Your task to perform on an android device: Go to Maps Image 0: 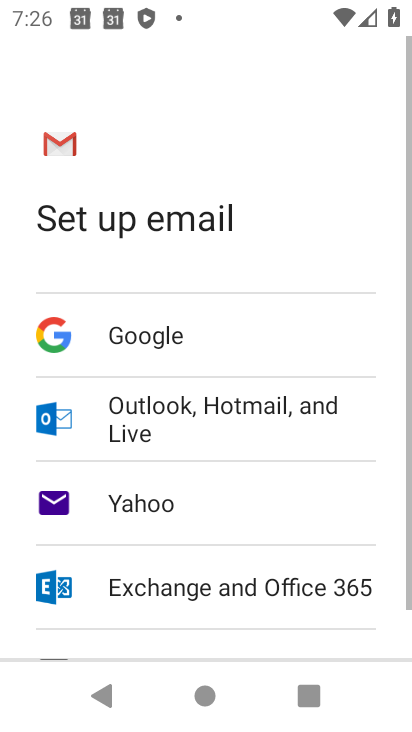
Step 0: press home button
Your task to perform on an android device: Go to Maps Image 1: 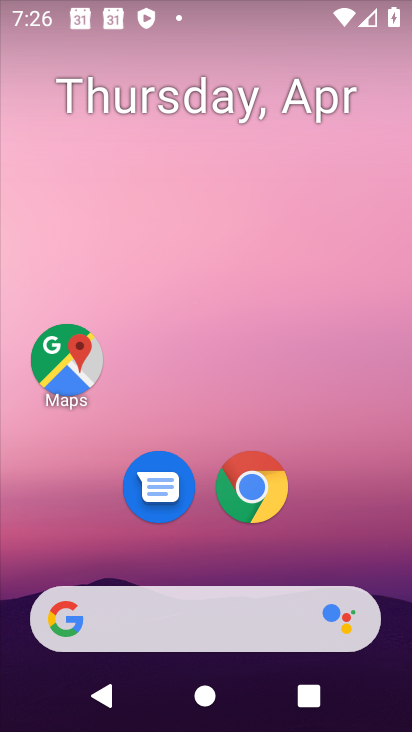
Step 1: drag from (332, 544) to (274, 79)
Your task to perform on an android device: Go to Maps Image 2: 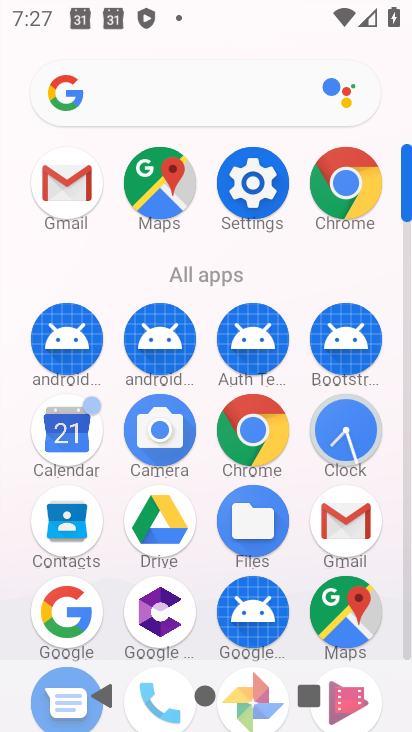
Step 2: click (347, 604)
Your task to perform on an android device: Go to Maps Image 3: 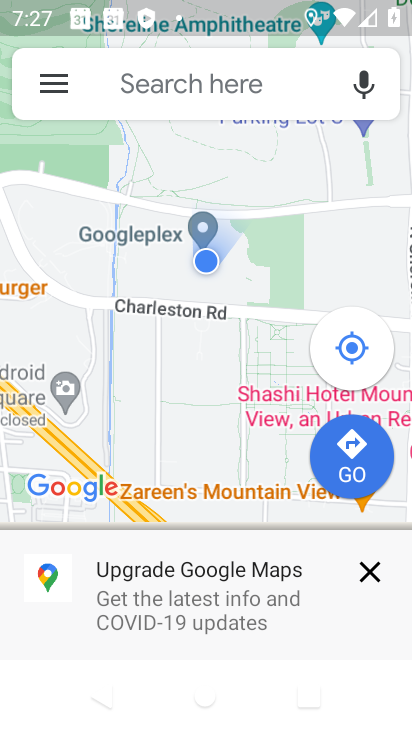
Step 3: task complete